Your task to perform on an android device: Go to internet settings Image 0: 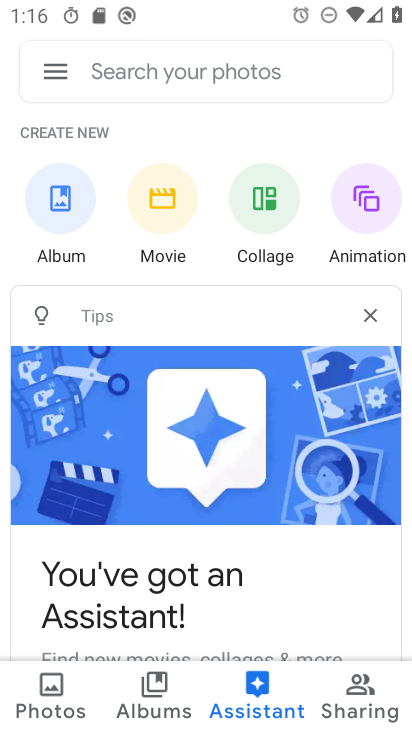
Step 0: press home button
Your task to perform on an android device: Go to internet settings Image 1: 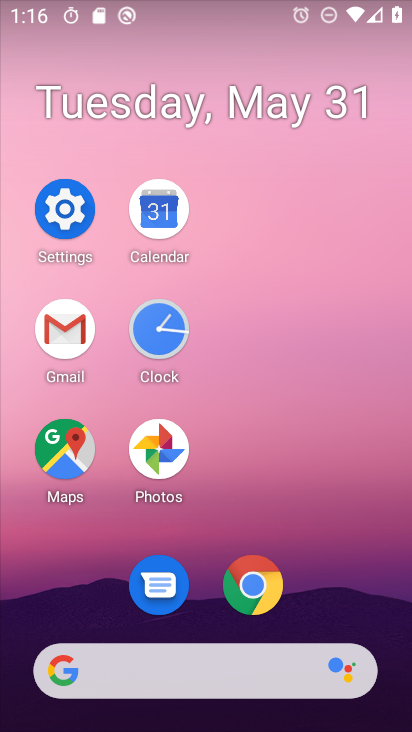
Step 1: click (66, 206)
Your task to perform on an android device: Go to internet settings Image 2: 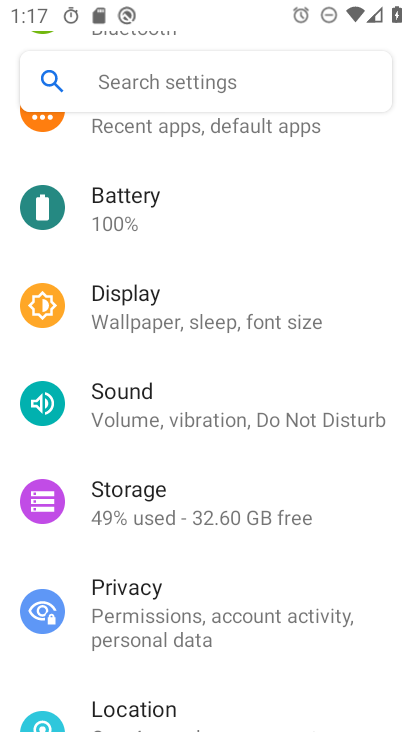
Step 2: drag from (303, 212) to (357, 600)
Your task to perform on an android device: Go to internet settings Image 3: 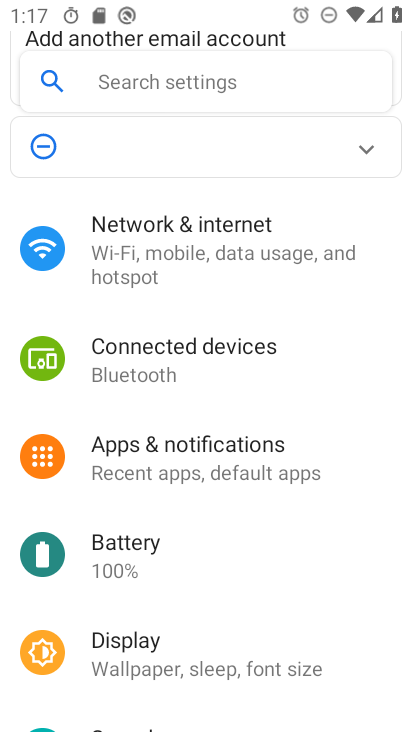
Step 3: click (181, 230)
Your task to perform on an android device: Go to internet settings Image 4: 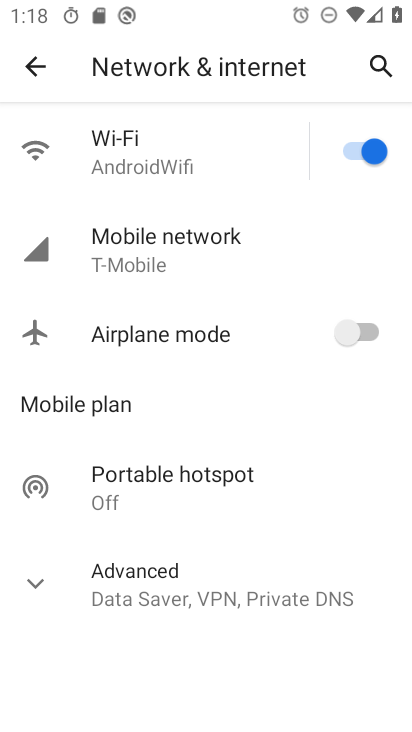
Step 4: task complete